Your task to perform on an android device: Play the last video I watched on Youtube Image 0: 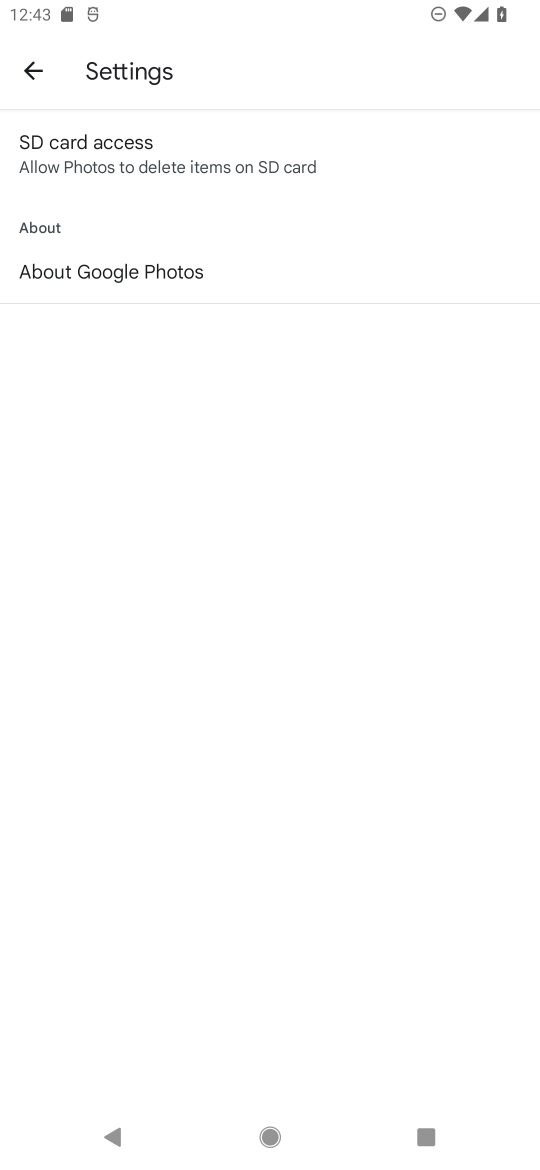
Step 0: press home button
Your task to perform on an android device: Play the last video I watched on Youtube Image 1: 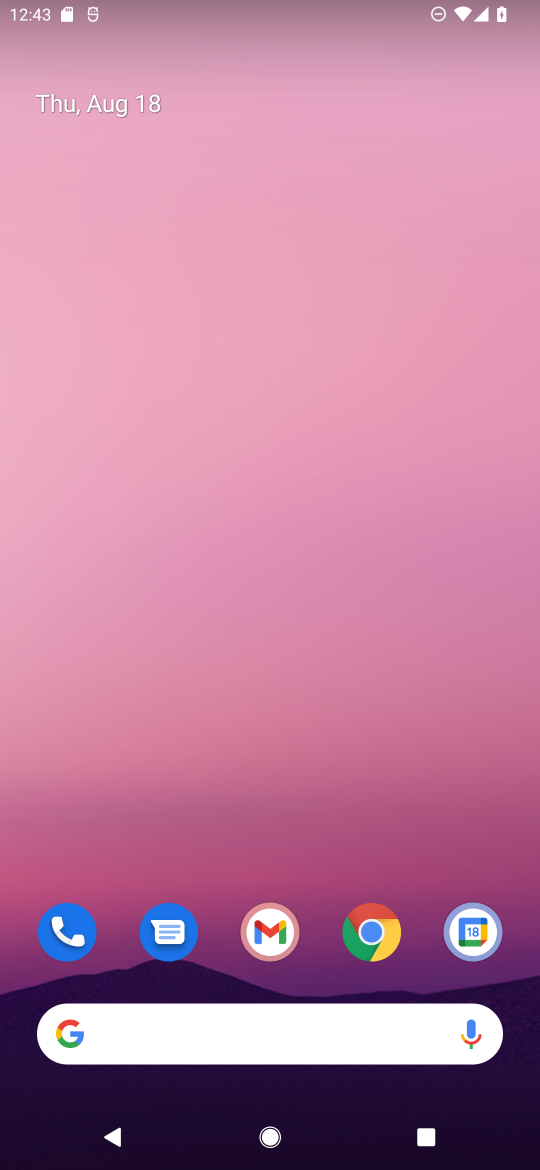
Step 1: drag from (287, 800) to (245, 23)
Your task to perform on an android device: Play the last video I watched on Youtube Image 2: 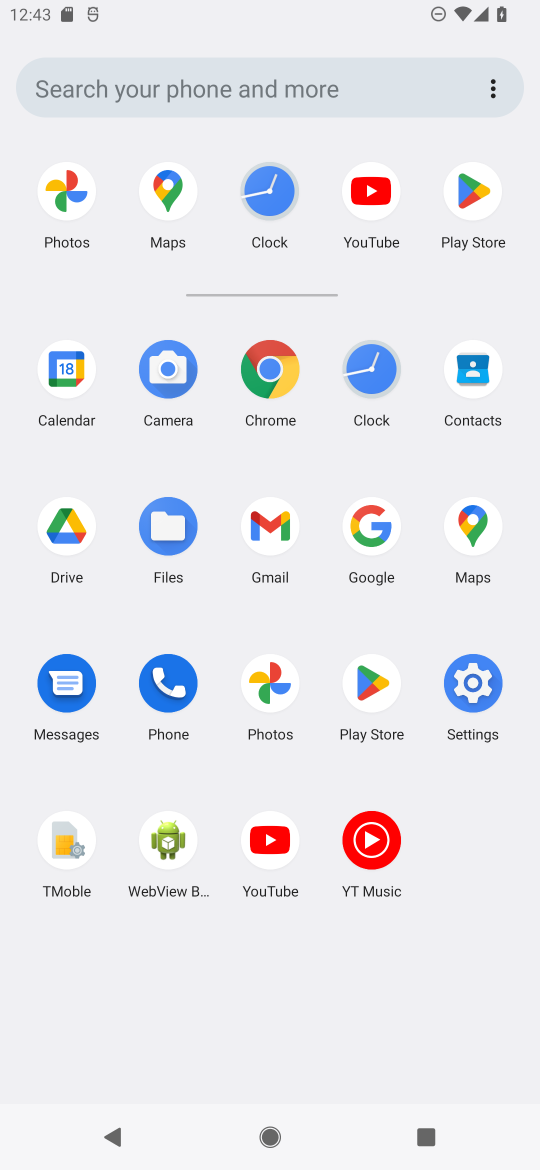
Step 2: click (271, 832)
Your task to perform on an android device: Play the last video I watched on Youtube Image 3: 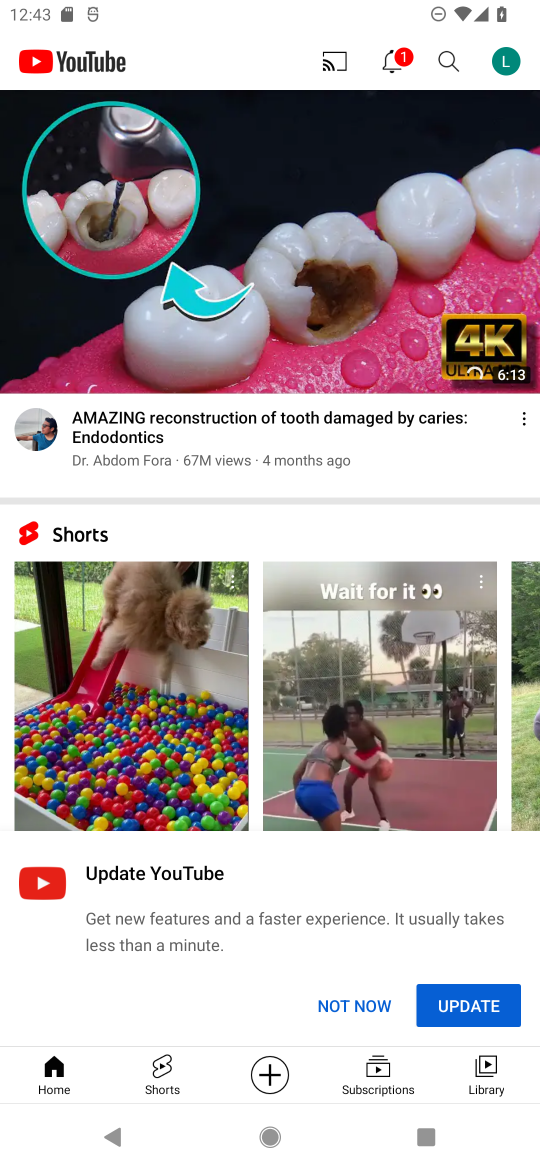
Step 3: click (492, 1056)
Your task to perform on an android device: Play the last video I watched on Youtube Image 4: 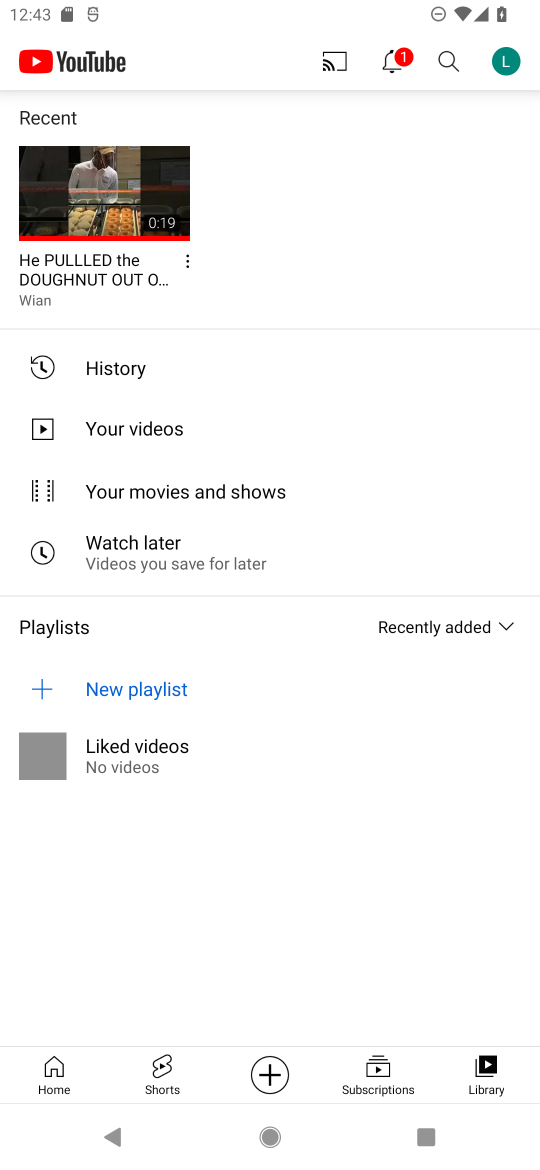
Step 4: click (88, 185)
Your task to perform on an android device: Play the last video I watched on Youtube Image 5: 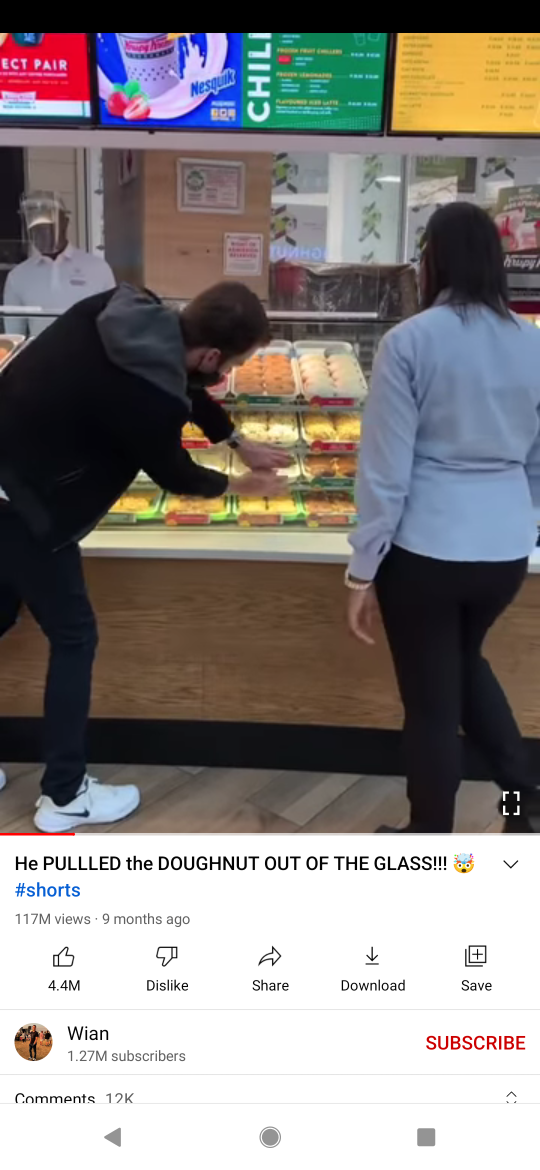
Step 5: task complete